Your task to perform on an android device: Open sound settings Image 0: 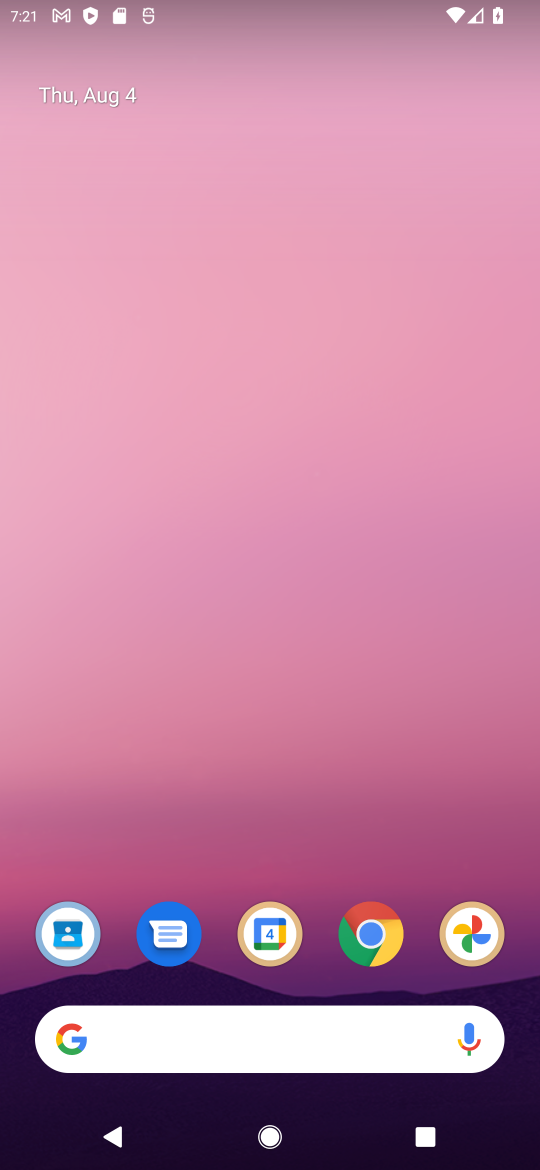
Step 0: drag from (243, 946) to (310, 146)
Your task to perform on an android device: Open sound settings Image 1: 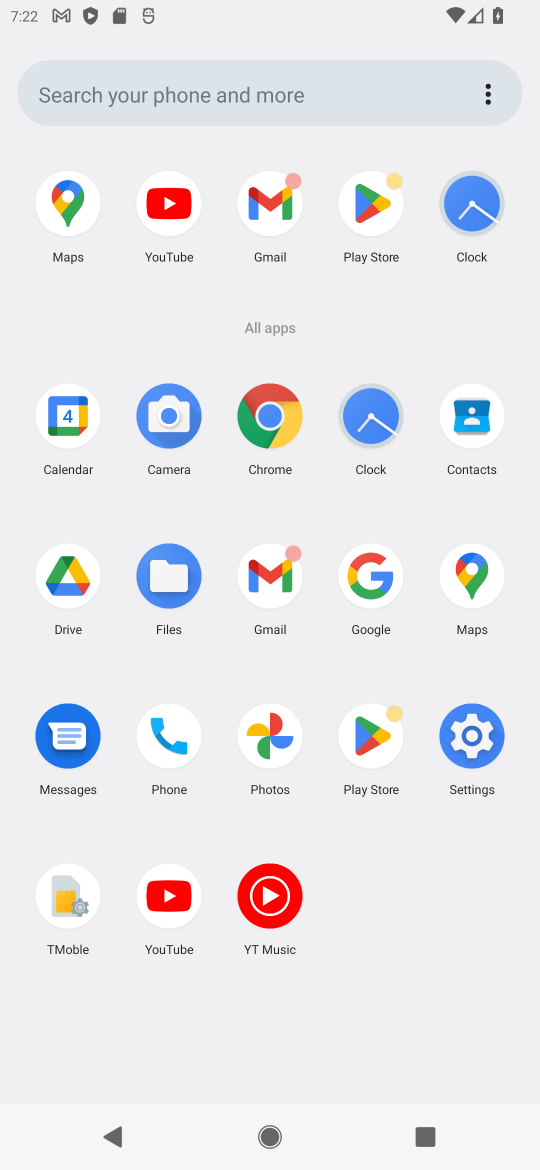
Step 1: click (469, 756)
Your task to perform on an android device: Open sound settings Image 2: 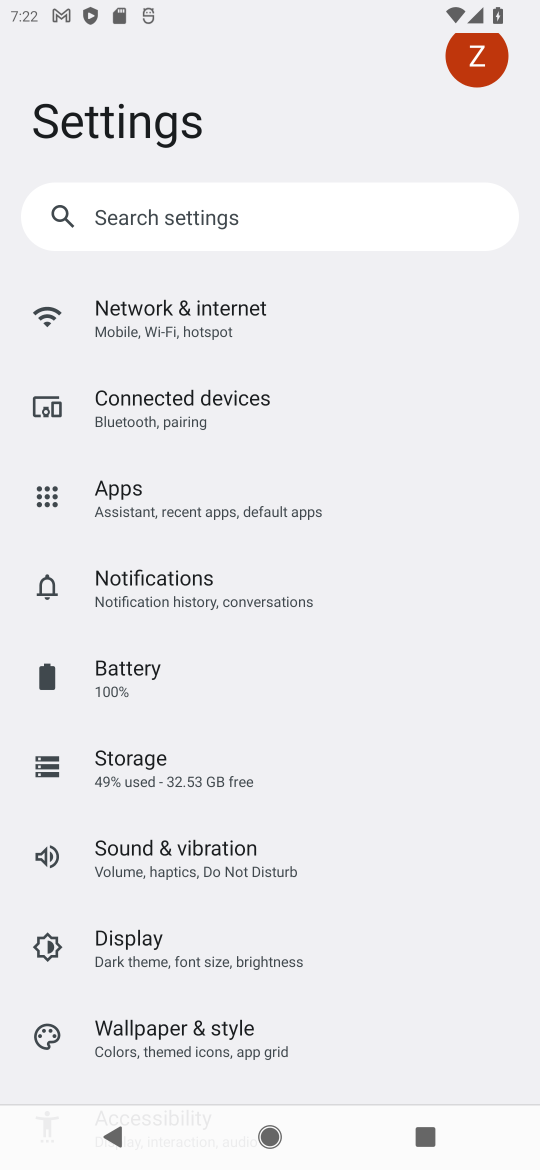
Step 2: drag from (239, 861) to (308, 348)
Your task to perform on an android device: Open sound settings Image 3: 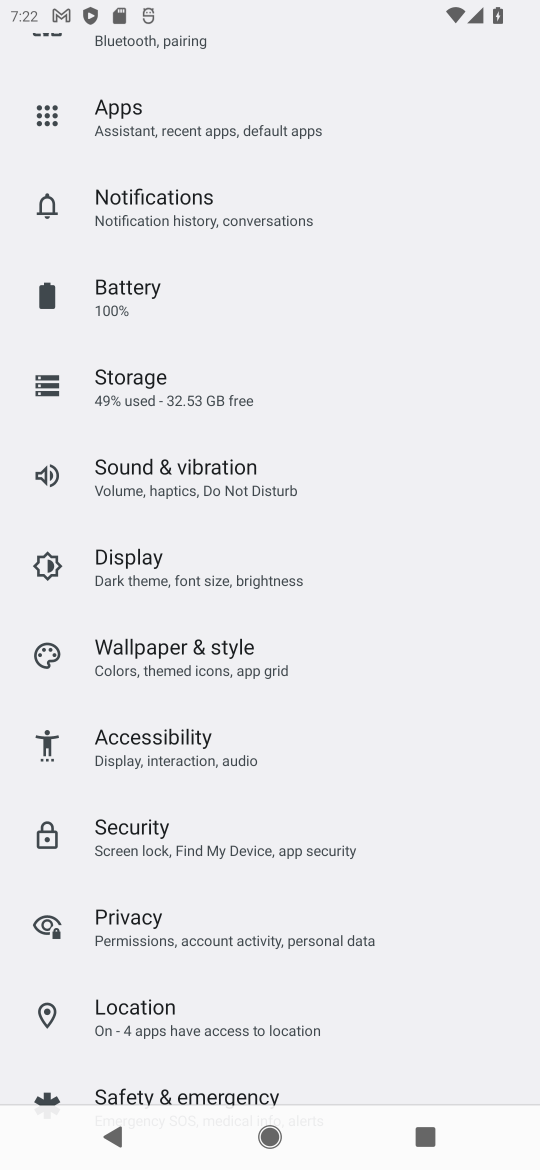
Step 3: click (267, 480)
Your task to perform on an android device: Open sound settings Image 4: 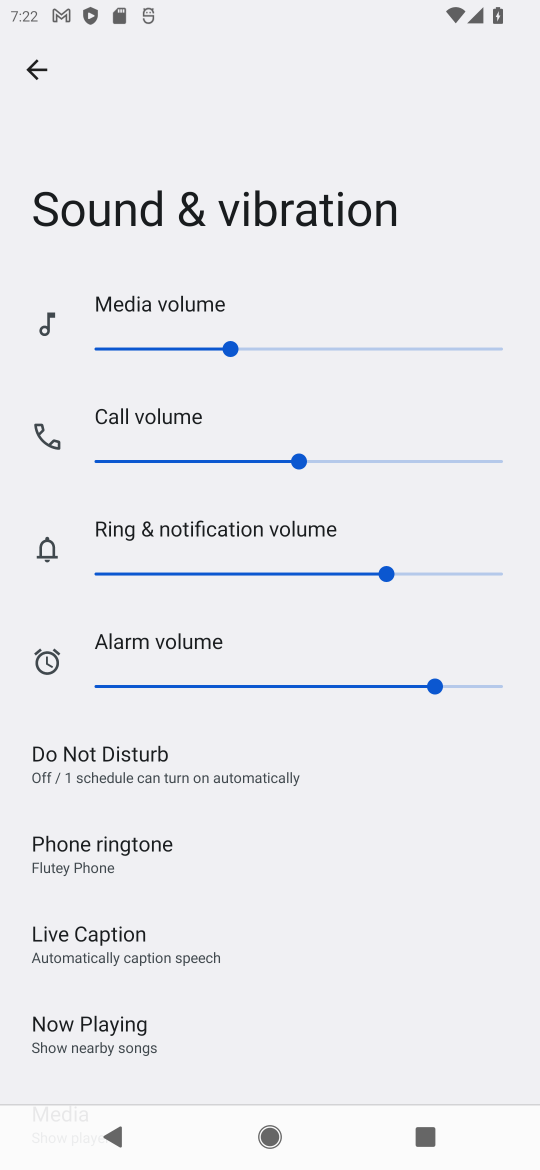
Step 4: task complete